Your task to perform on an android device: open app "Contacts" Image 0: 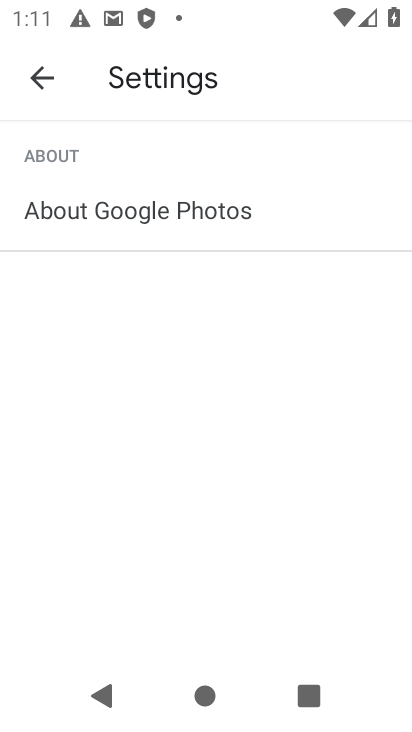
Step 0: press home button
Your task to perform on an android device: open app "Contacts" Image 1: 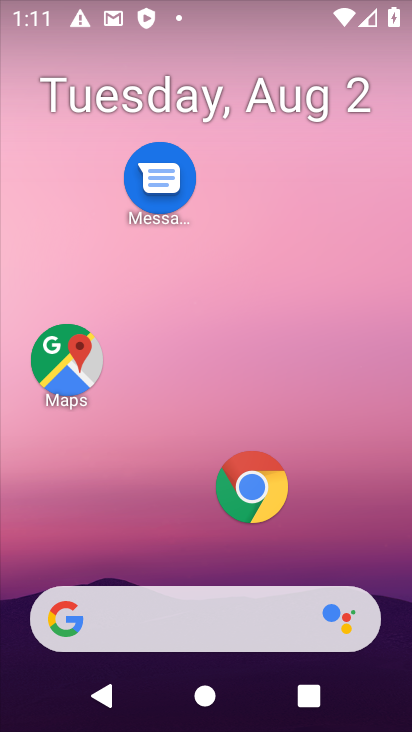
Step 1: drag from (211, 537) to (235, 135)
Your task to perform on an android device: open app "Contacts" Image 2: 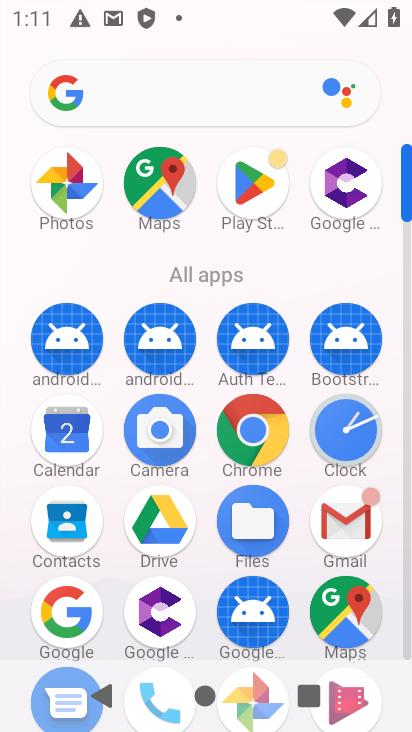
Step 2: click (244, 169)
Your task to perform on an android device: open app "Contacts" Image 3: 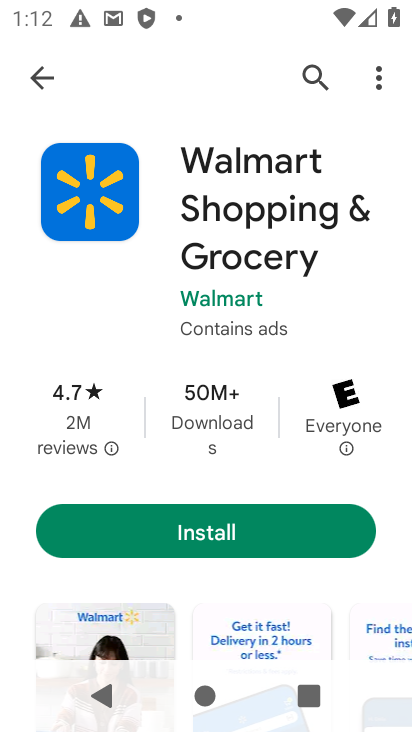
Step 3: click (331, 75)
Your task to perform on an android device: open app "Contacts" Image 4: 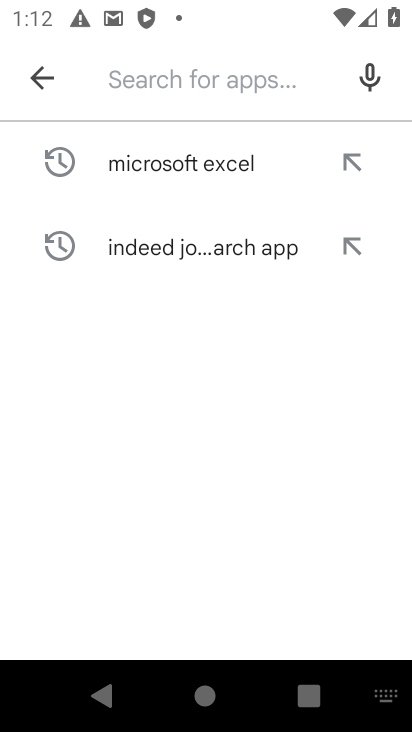
Step 4: type "Contacts"
Your task to perform on an android device: open app "Contacts" Image 5: 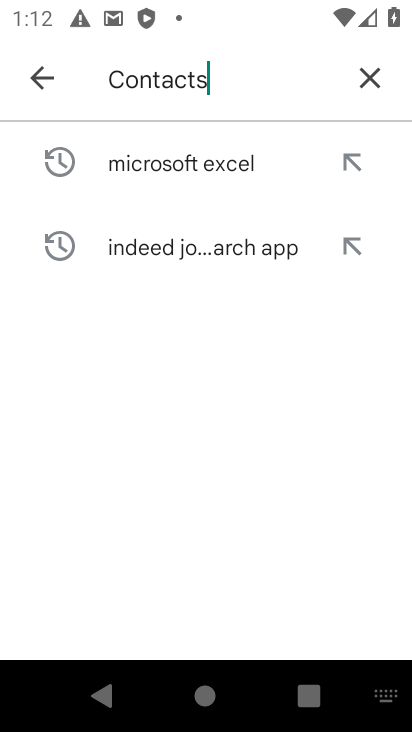
Step 5: type ""
Your task to perform on an android device: open app "Contacts" Image 6: 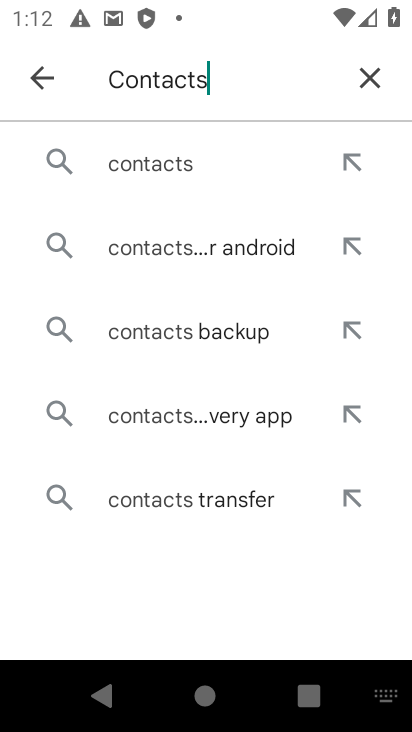
Step 6: click (188, 160)
Your task to perform on an android device: open app "Contacts" Image 7: 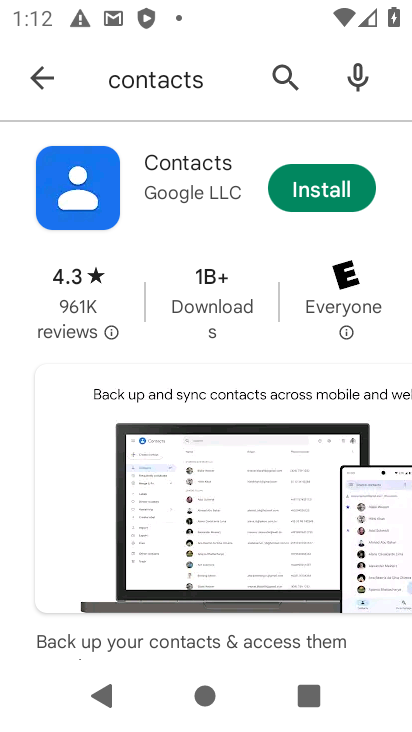
Step 7: task complete